Your task to perform on an android device: toggle location history Image 0: 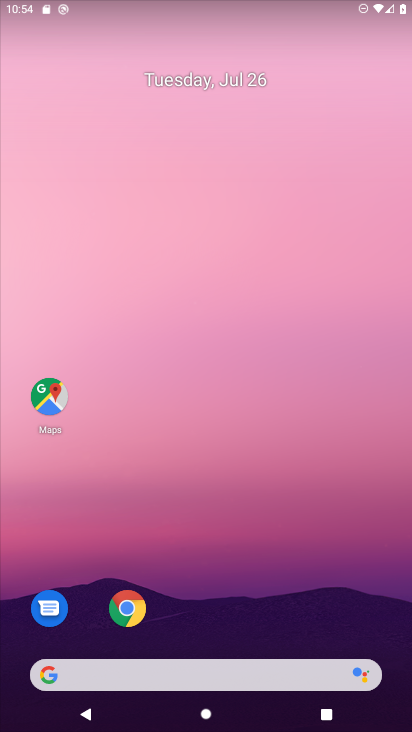
Step 0: drag from (297, 637) to (297, 158)
Your task to perform on an android device: toggle location history Image 1: 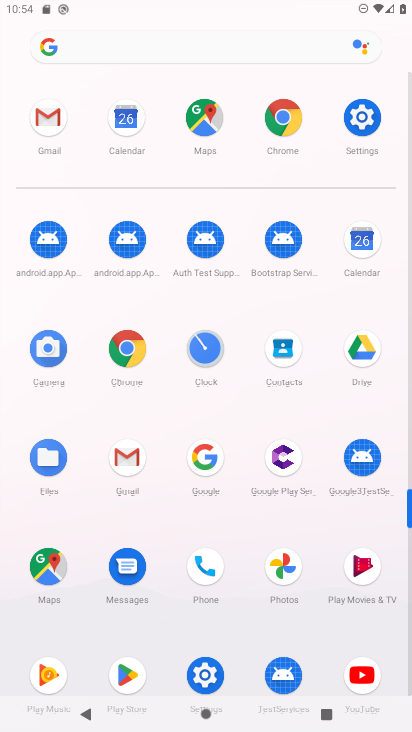
Step 1: click (365, 118)
Your task to perform on an android device: toggle location history Image 2: 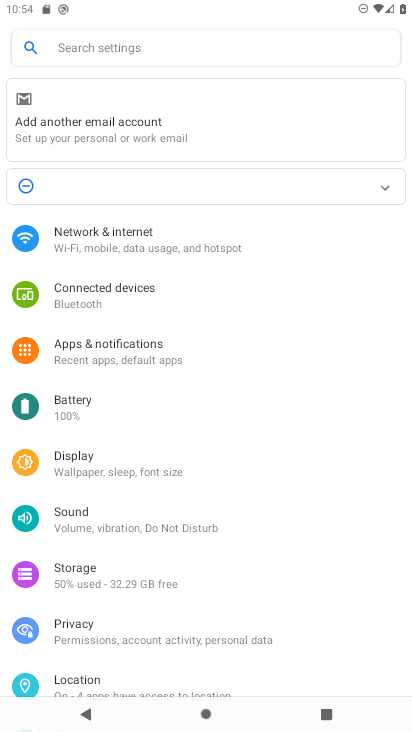
Step 2: click (97, 686)
Your task to perform on an android device: toggle location history Image 3: 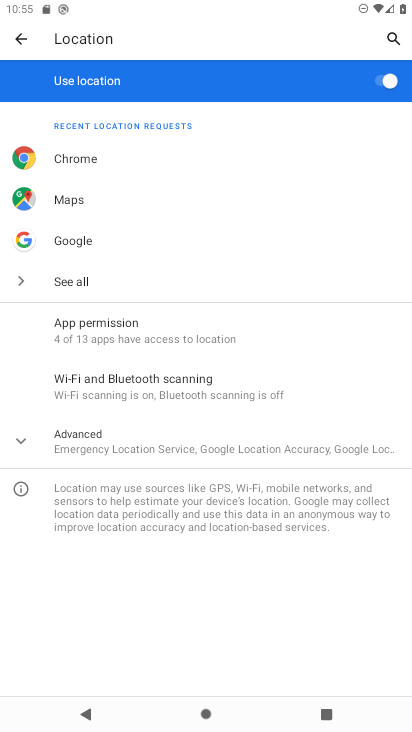
Step 3: click (124, 446)
Your task to perform on an android device: toggle location history Image 4: 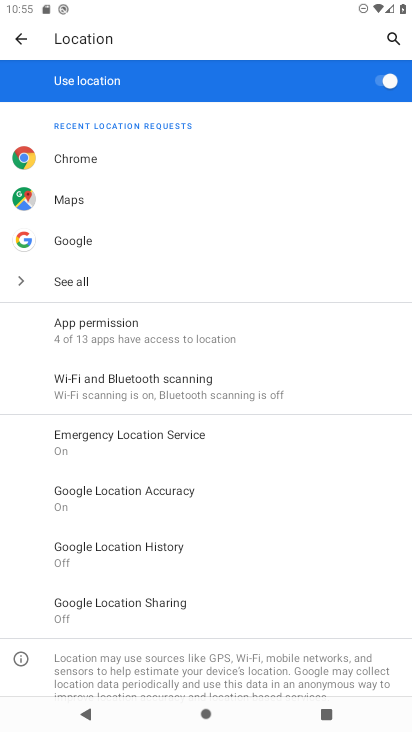
Step 4: click (161, 545)
Your task to perform on an android device: toggle location history Image 5: 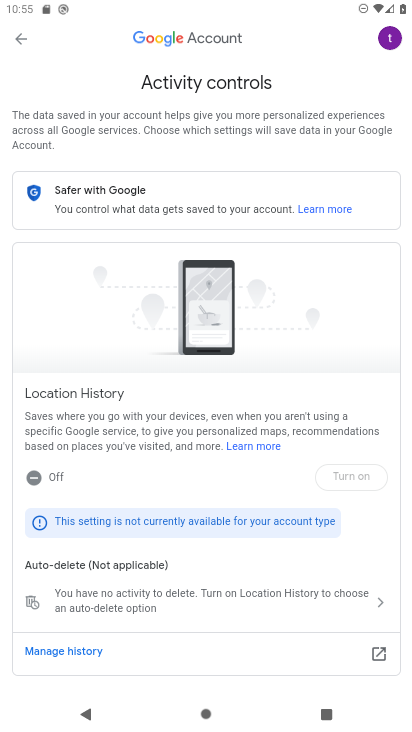
Step 5: task complete